Your task to perform on an android device: turn off picture-in-picture Image 0: 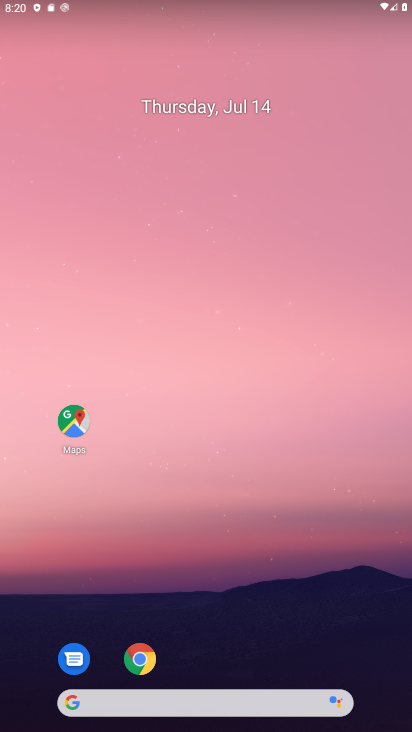
Step 0: click (233, 431)
Your task to perform on an android device: turn off picture-in-picture Image 1: 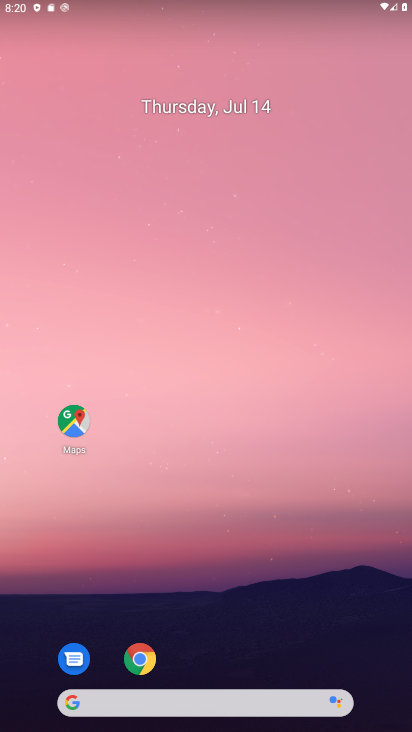
Step 1: drag from (195, 652) to (121, 186)
Your task to perform on an android device: turn off picture-in-picture Image 2: 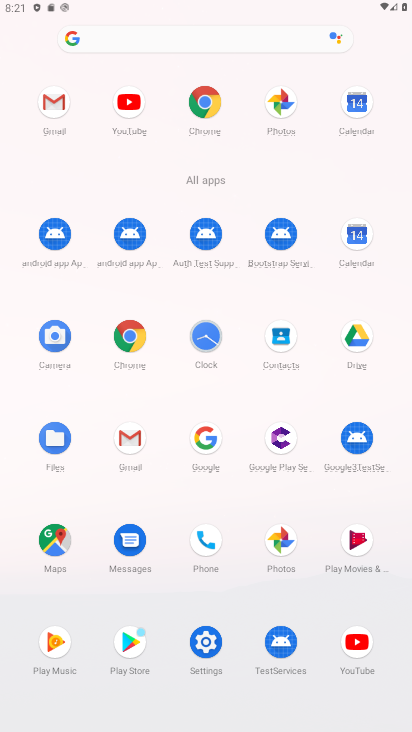
Step 2: click (197, 647)
Your task to perform on an android device: turn off picture-in-picture Image 3: 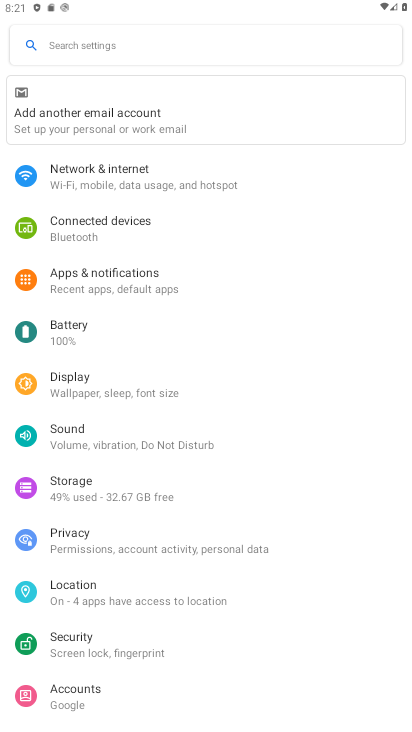
Step 3: drag from (197, 647) to (154, 261)
Your task to perform on an android device: turn off picture-in-picture Image 4: 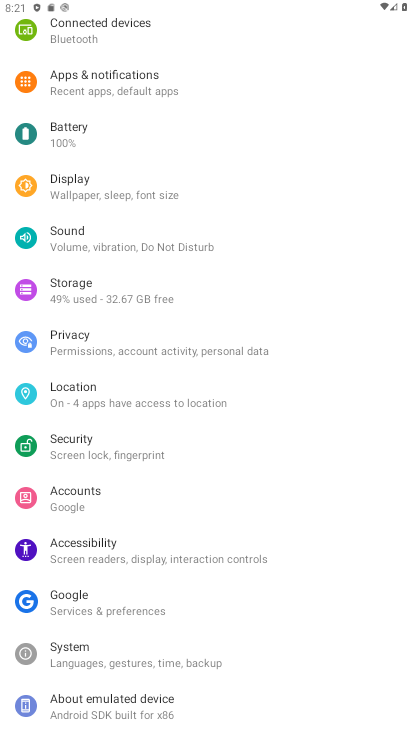
Step 4: click (92, 85)
Your task to perform on an android device: turn off picture-in-picture Image 5: 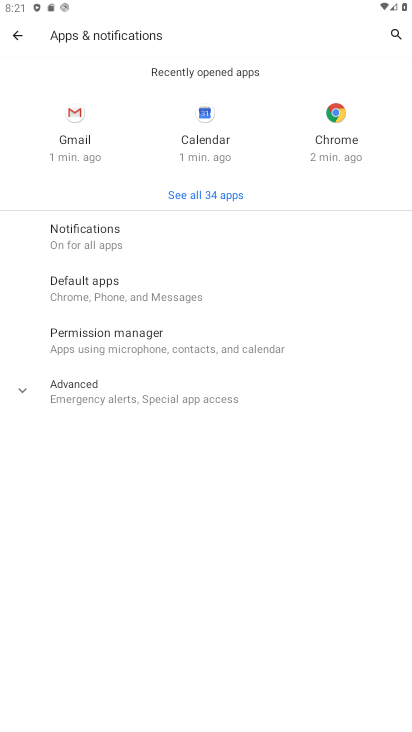
Step 5: click (75, 369)
Your task to perform on an android device: turn off picture-in-picture Image 6: 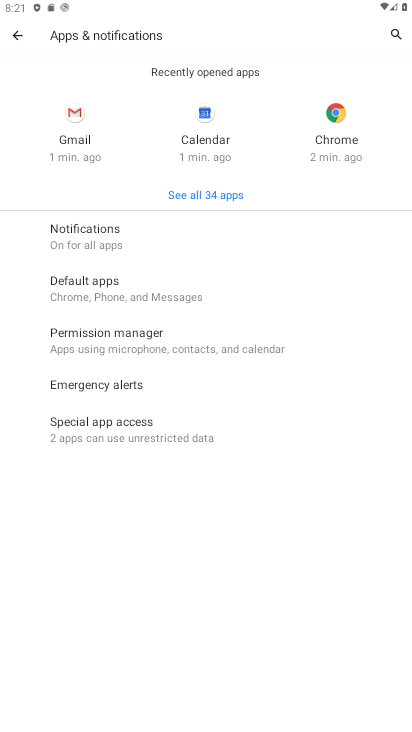
Step 6: click (93, 423)
Your task to perform on an android device: turn off picture-in-picture Image 7: 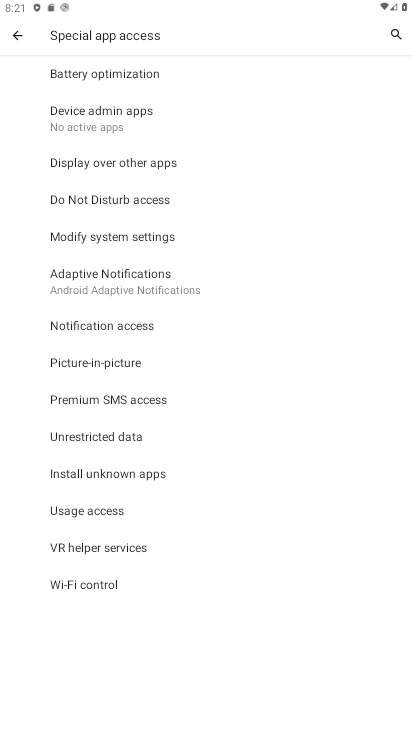
Step 7: click (73, 366)
Your task to perform on an android device: turn off picture-in-picture Image 8: 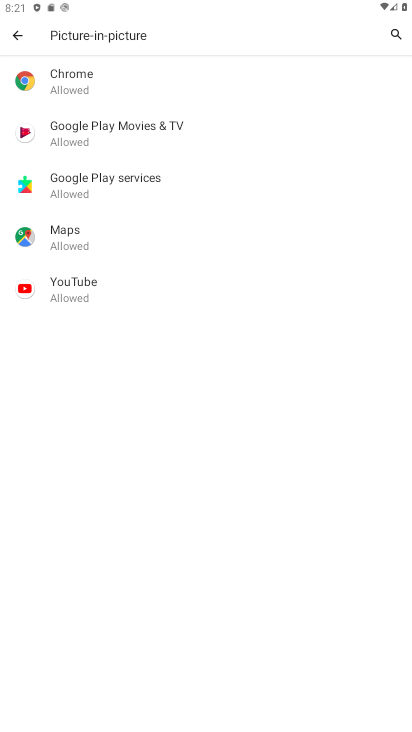
Step 8: task complete